Your task to perform on an android device: Open Google Chrome Image 0: 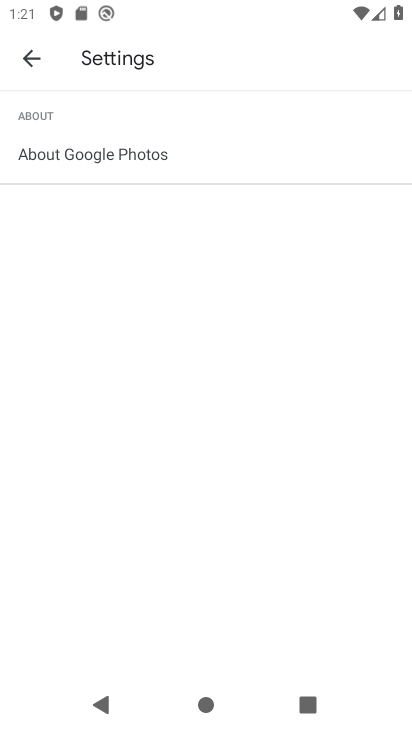
Step 0: press home button
Your task to perform on an android device: Open Google Chrome Image 1: 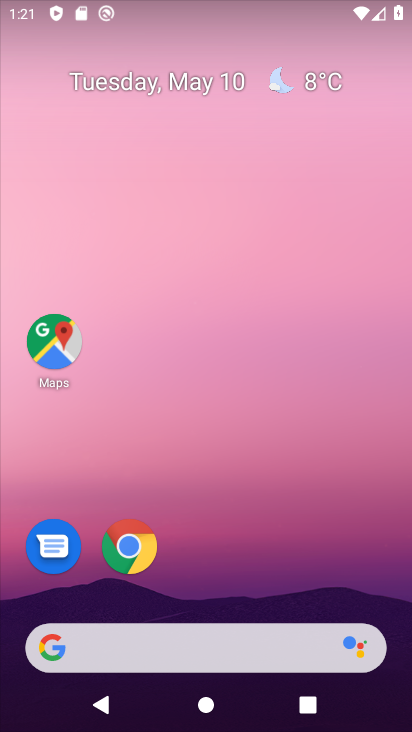
Step 1: click (127, 547)
Your task to perform on an android device: Open Google Chrome Image 2: 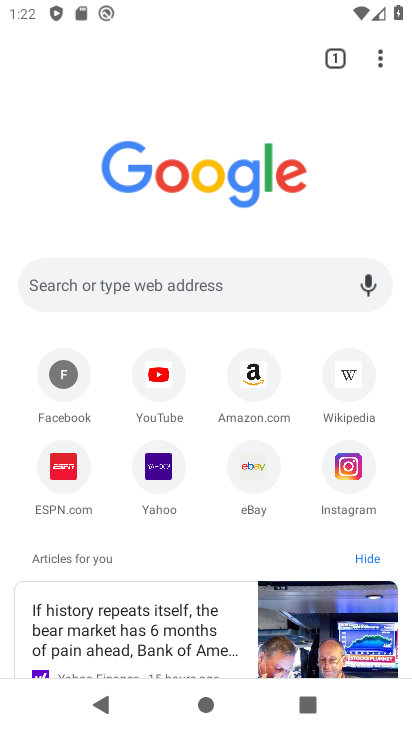
Step 2: task complete